Your task to perform on an android device: turn on improve location accuracy Image 0: 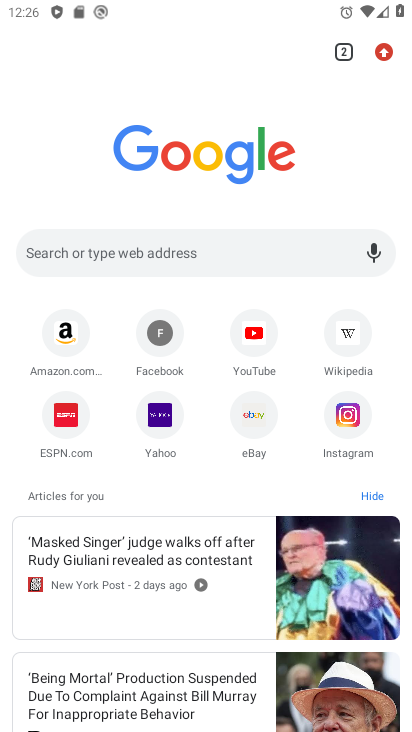
Step 0: press home button
Your task to perform on an android device: turn on improve location accuracy Image 1: 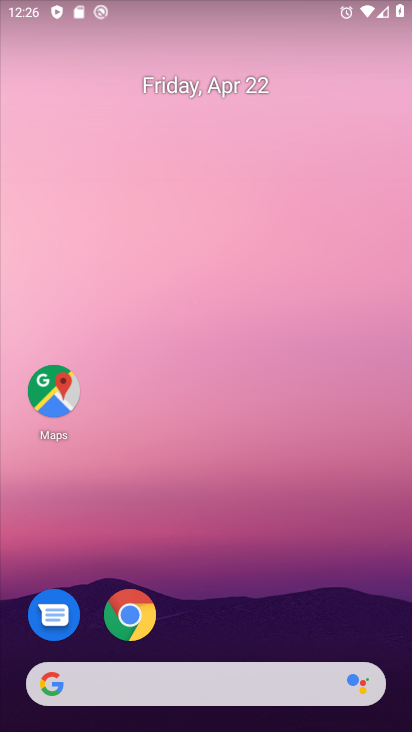
Step 1: drag from (211, 625) to (271, 111)
Your task to perform on an android device: turn on improve location accuracy Image 2: 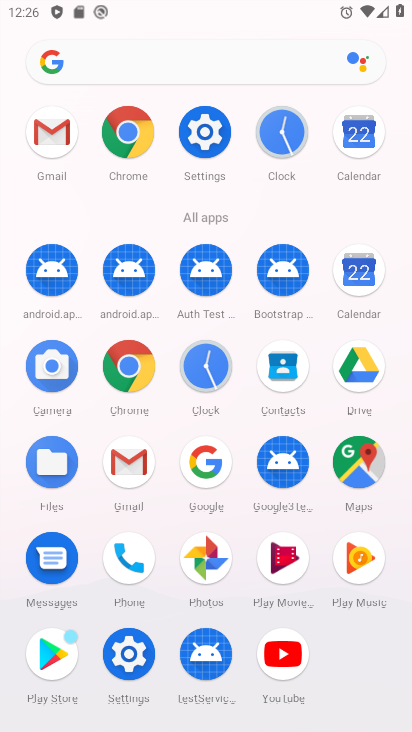
Step 2: drag from (207, 136) to (74, 149)
Your task to perform on an android device: turn on improve location accuracy Image 3: 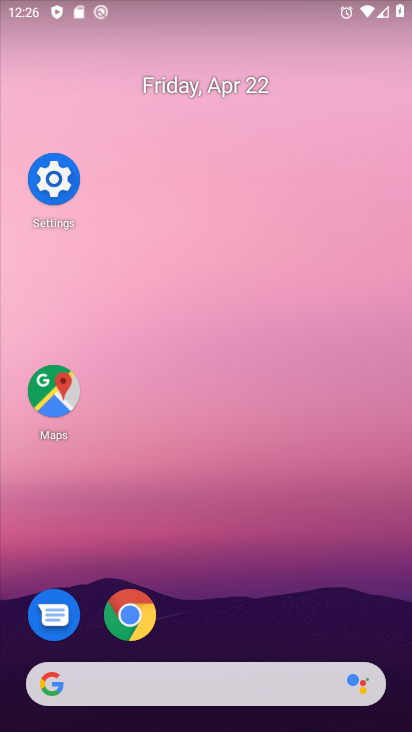
Step 3: click (64, 166)
Your task to perform on an android device: turn on improve location accuracy Image 4: 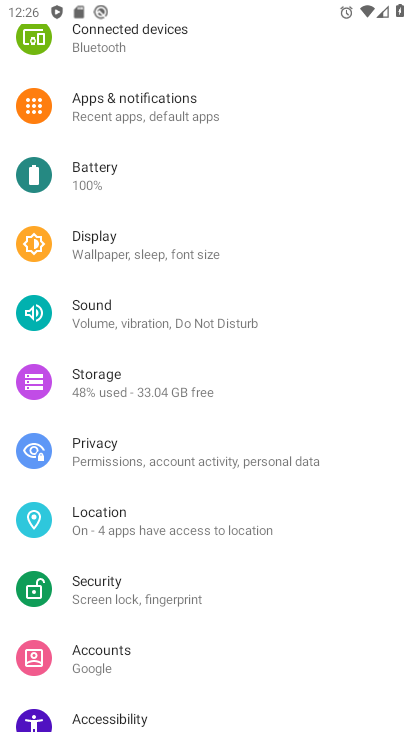
Step 4: click (148, 527)
Your task to perform on an android device: turn on improve location accuracy Image 5: 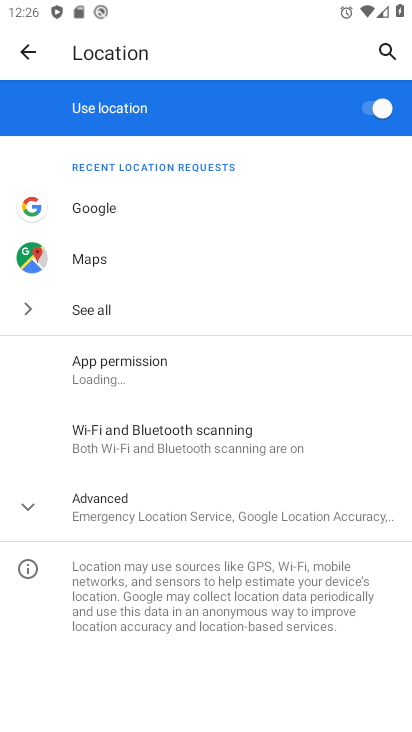
Step 5: click (148, 518)
Your task to perform on an android device: turn on improve location accuracy Image 6: 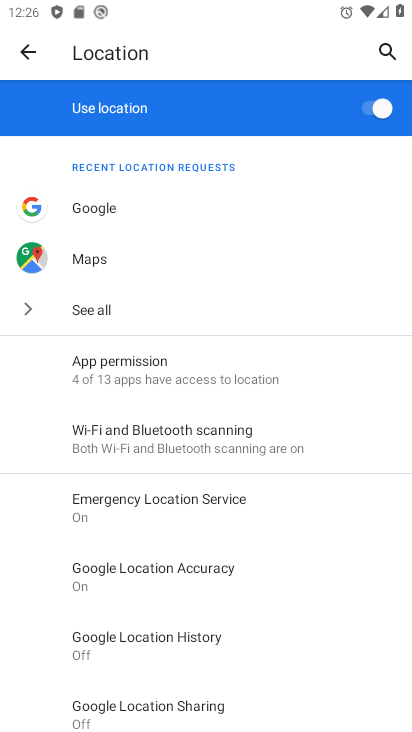
Step 6: click (167, 568)
Your task to perform on an android device: turn on improve location accuracy Image 7: 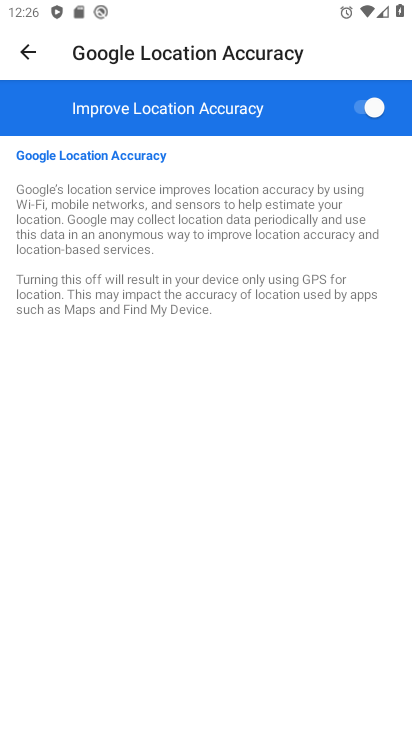
Step 7: task complete